Your task to perform on an android device: Search for sushi restaurants on Maps Image 0: 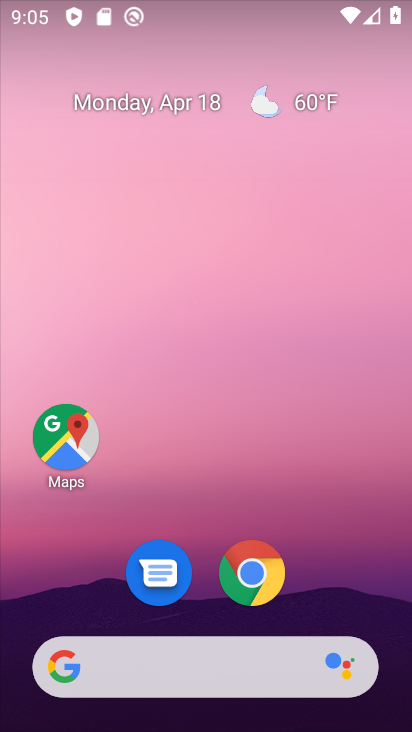
Step 0: drag from (225, 724) to (224, 168)
Your task to perform on an android device: Search for sushi restaurants on Maps Image 1: 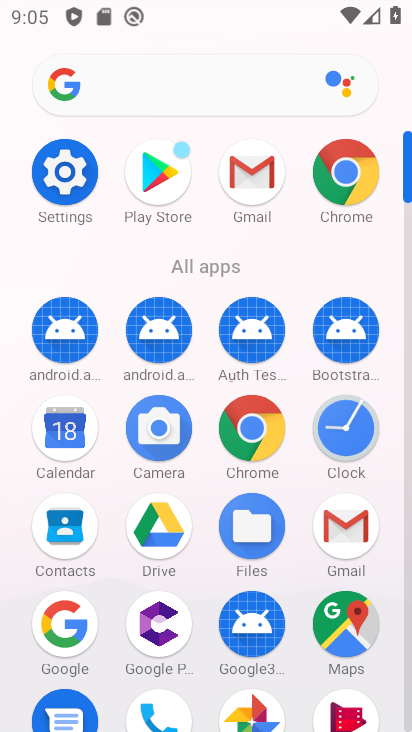
Step 1: drag from (210, 668) to (210, 282)
Your task to perform on an android device: Search for sushi restaurants on Maps Image 2: 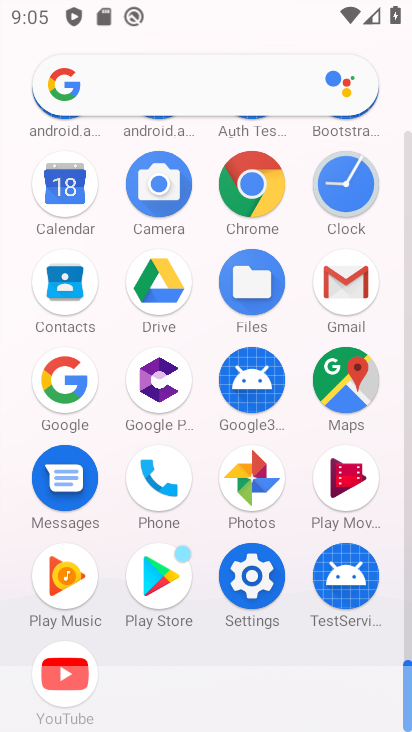
Step 2: click (348, 386)
Your task to perform on an android device: Search for sushi restaurants on Maps Image 3: 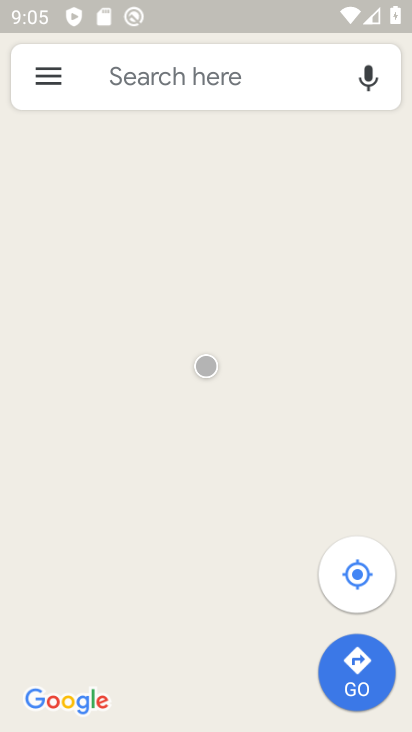
Step 3: click (212, 79)
Your task to perform on an android device: Search for sushi restaurants on Maps Image 4: 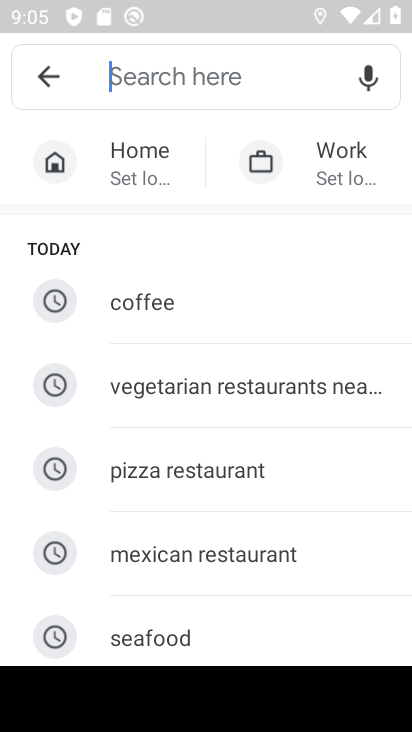
Step 4: click (219, 73)
Your task to perform on an android device: Search for sushi restaurants on Maps Image 5: 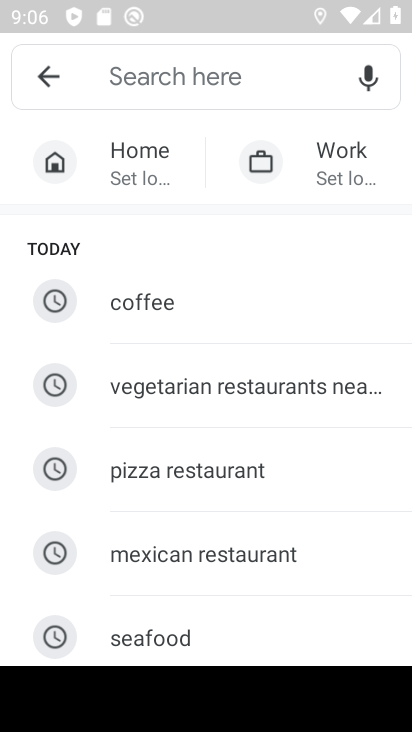
Step 5: type "sushi restaurants"
Your task to perform on an android device: Search for sushi restaurants on Maps Image 6: 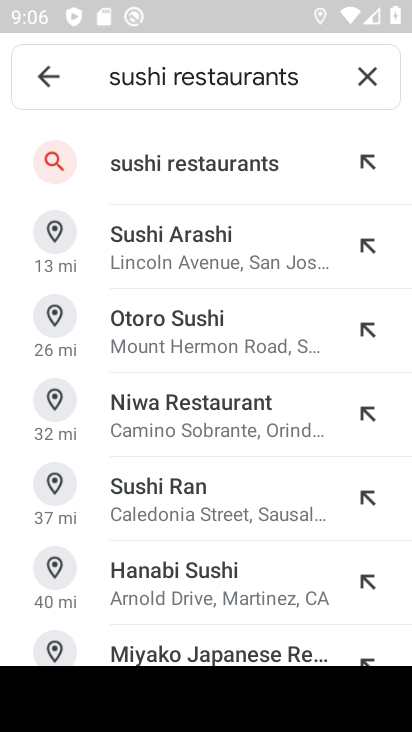
Step 6: click (190, 164)
Your task to perform on an android device: Search for sushi restaurants on Maps Image 7: 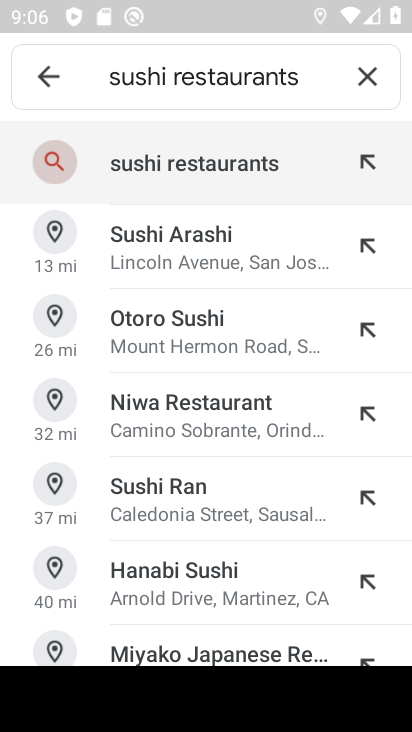
Step 7: click (190, 164)
Your task to perform on an android device: Search for sushi restaurants on Maps Image 8: 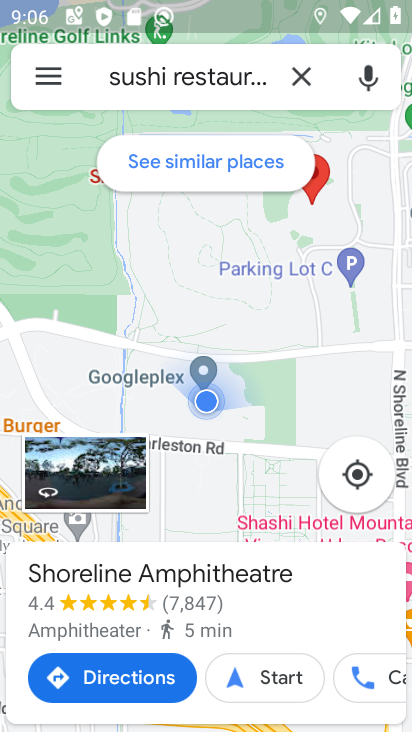
Step 8: task complete